Your task to perform on an android device: refresh tabs in the chrome app Image 0: 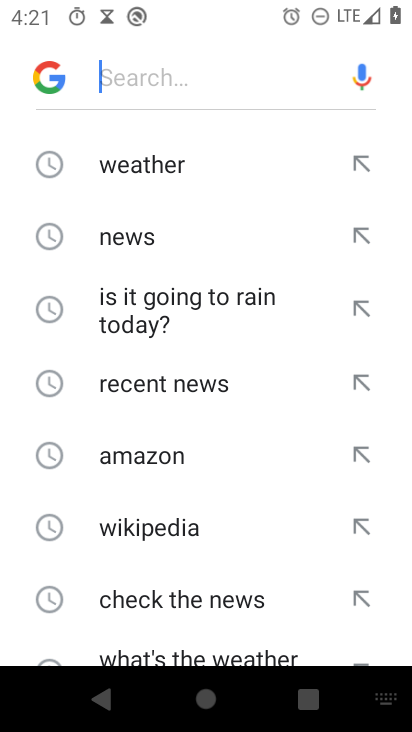
Step 0: press home button
Your task to perform on an android device: refresh tabs in the chrome app Image 1: 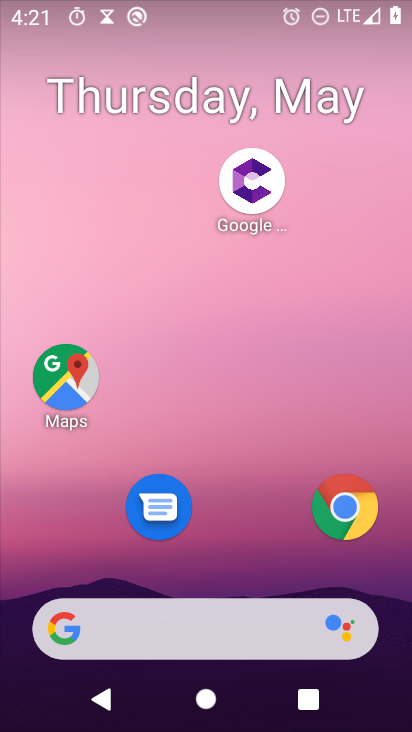
Step 1: click (354, 507)
Your task to perform on an android device: refresh tabs in the chrome app Image 2: 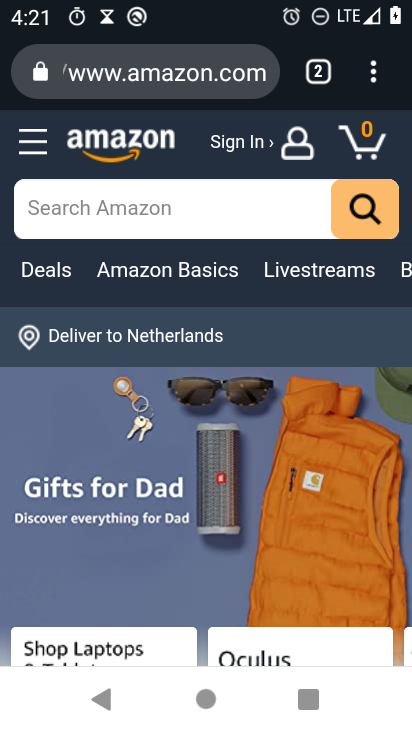
Step 2: click (384, 69)
Your task to perform on an android device: refresh tabs in the chrome app Image 3: 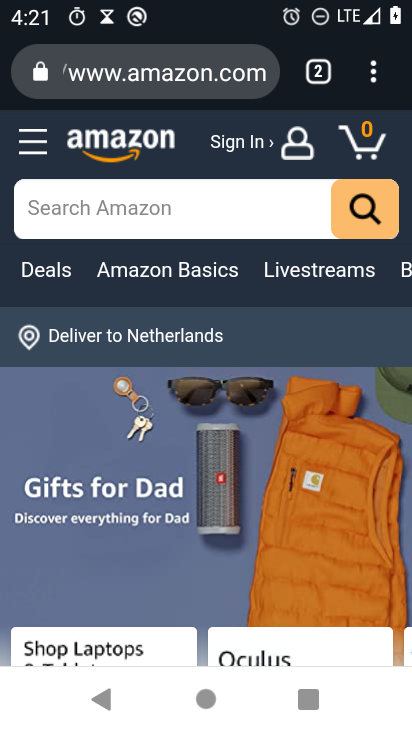
Step 3: click (375, 68)
Your task to perform on an android device: refresh tabs in the chrome app Image 4: 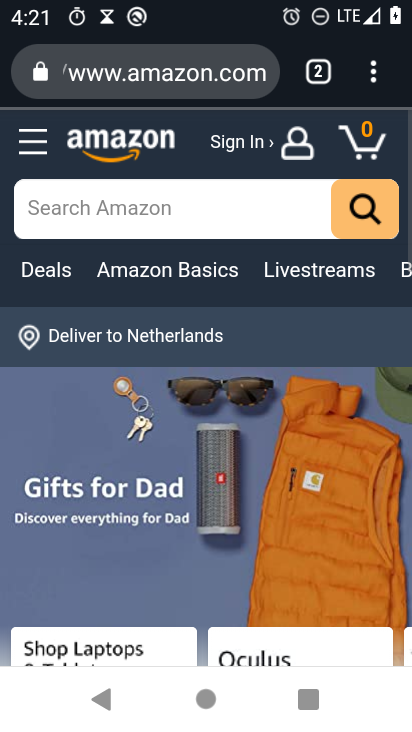
Step 4: click (375, 56)
Your task to perform on an android device: refresh tabs in the chrome app Image 5: 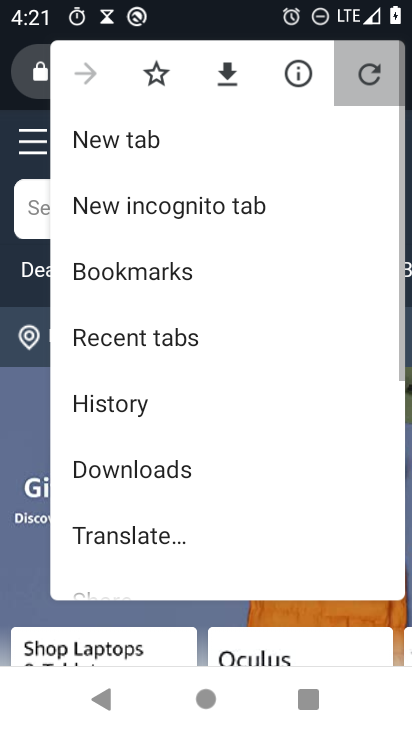
Step 5: click (373, 83)
Your task to perform on an android device: refresh tabs in the chrome app Image 6: 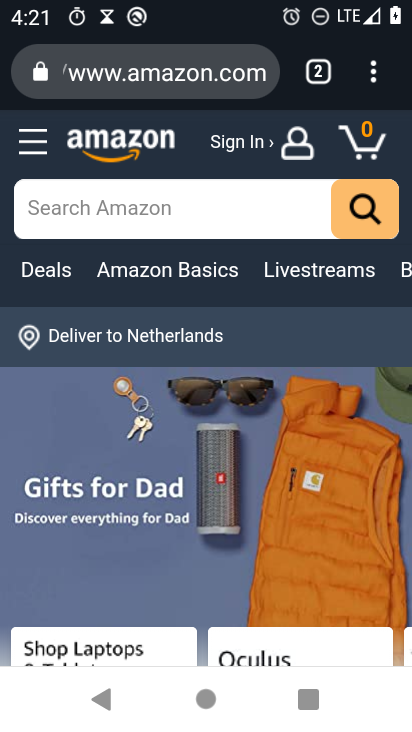
Step 6: task complete